Your task to perform on an android device: set the timer Image 0: 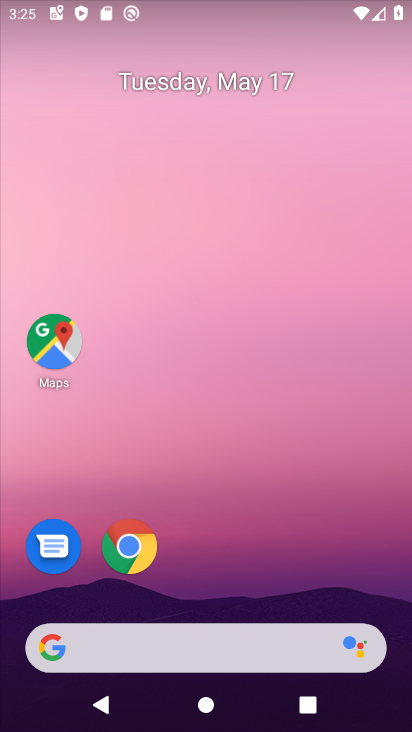
Step 0: drag from (199, 553) to (236, 220)
Your task to perform on an android device: set the timer Image 1: 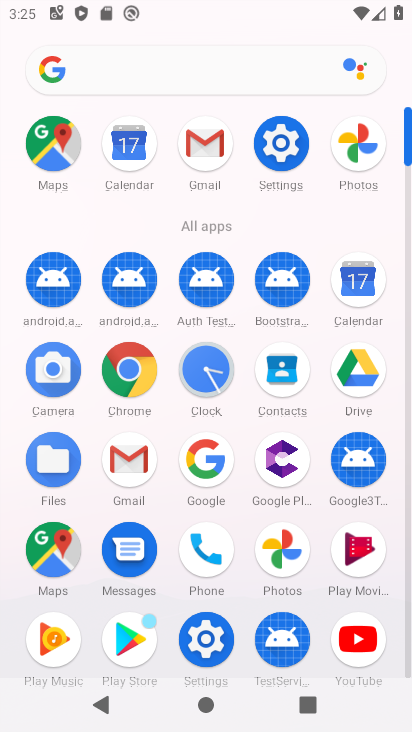
Step 1: click (205, 378)
Your task to perform on an android device: set the timer Image 2: 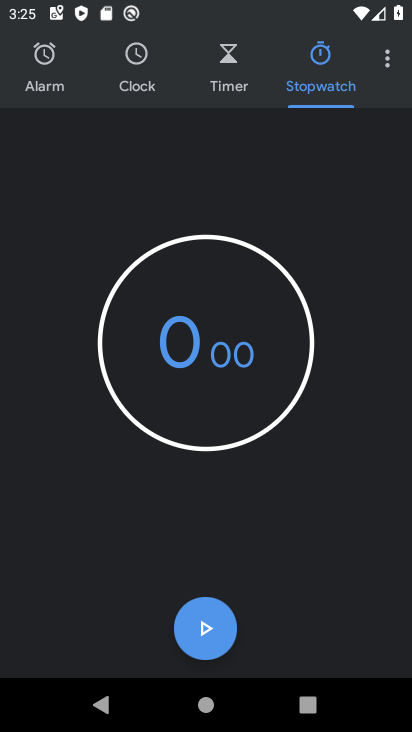
Step 2: click (219, 90)
Your task to perform on an android device: set the timer Image 3: 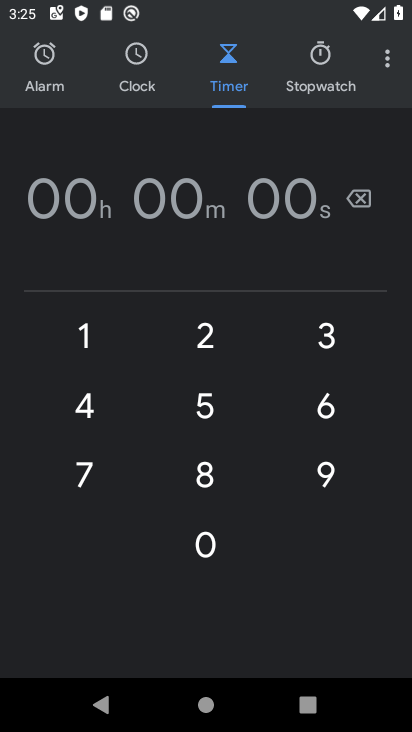
Step 3: click (206, 415)
Your task to perform on an android device: set the timer Image 4: 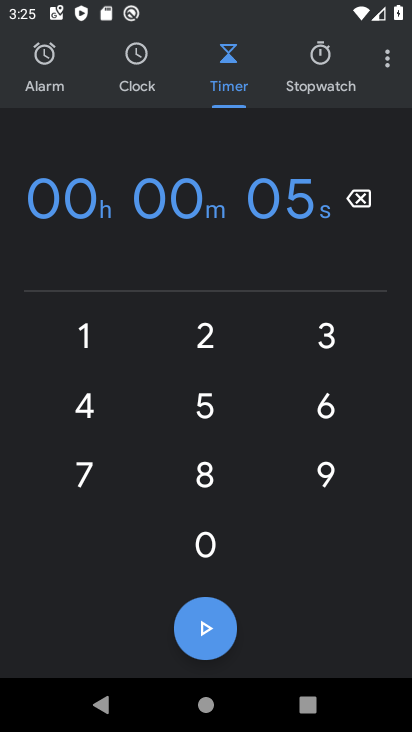
Step 4: task complete